Your task to perform on an android device: Go to Wikipedia Image 0: 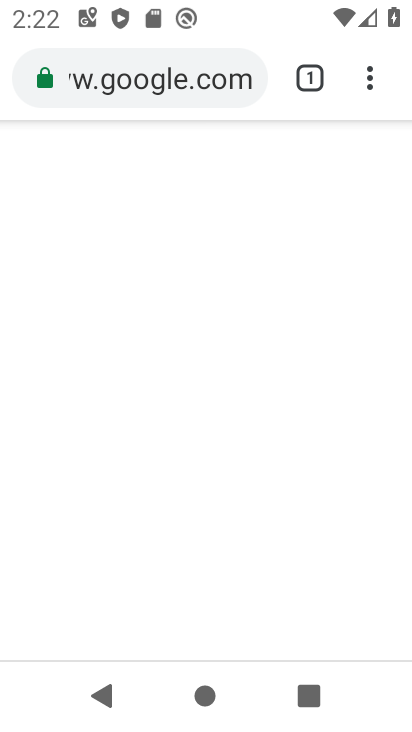
Step 0: press home button
Your task to perform on an android device: Go to Wikipedia Image 1: 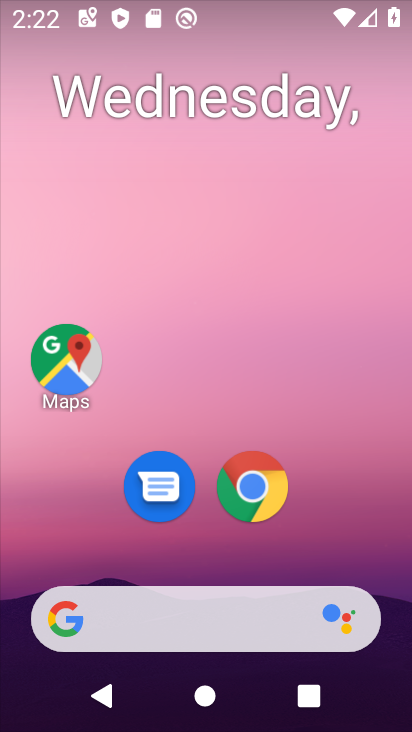
Step 1: drag from (309, 545) to (320, 131)
Your task to perform on an android device: Go to Wikipedia Image 2: 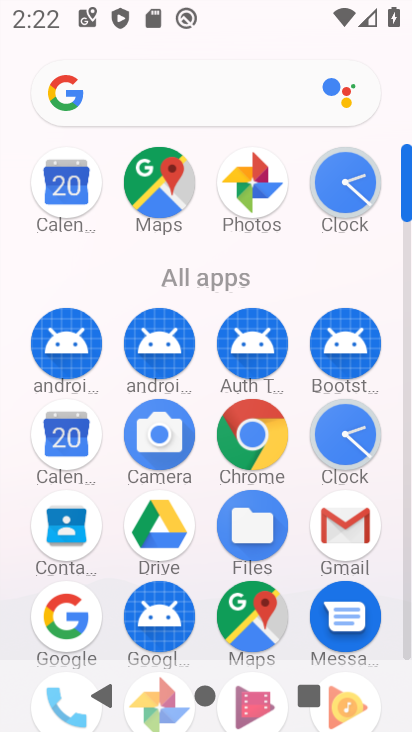
Step 2: click (221, 94)
Your task to perform on an android device: Go to Wikipedia Image 3: 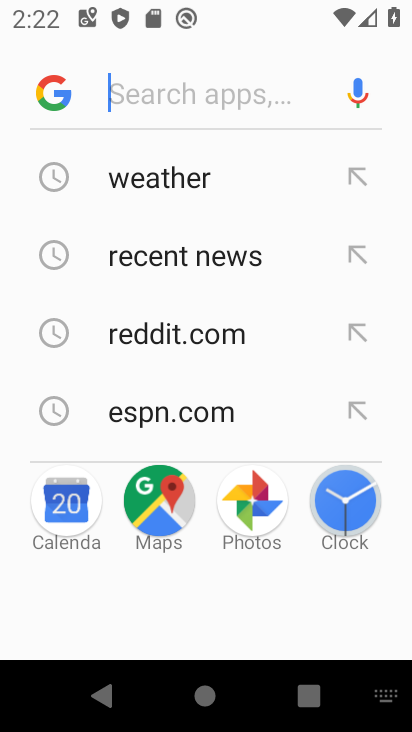
Step 3: type "wikipedia"
Your task to perform on an android device: Go to Wikipedia Image 4: 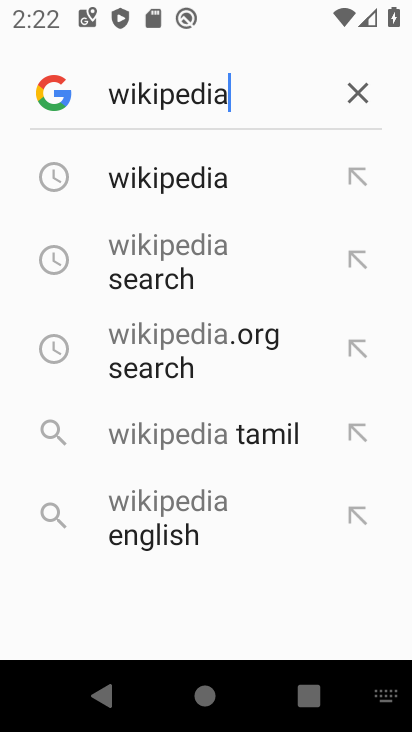
Step 4: click (147, 182)
Your task to perform on an android device: Go to Wikipedia Image 5: 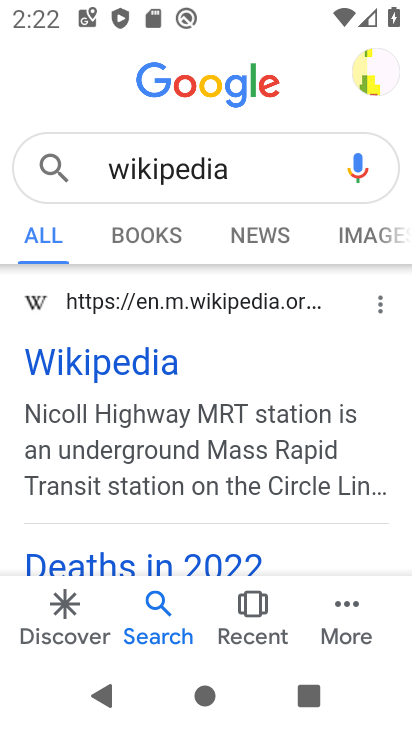
Step 5: click (129, 368)
Your task to perform on an android device: Go to Wikipedia Image 6: 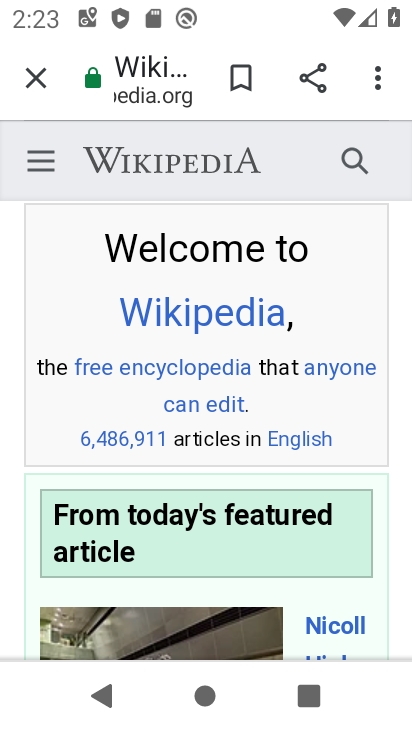
Step 6: task complete